Your task to perform on an android device: turn off wifi Image 0: 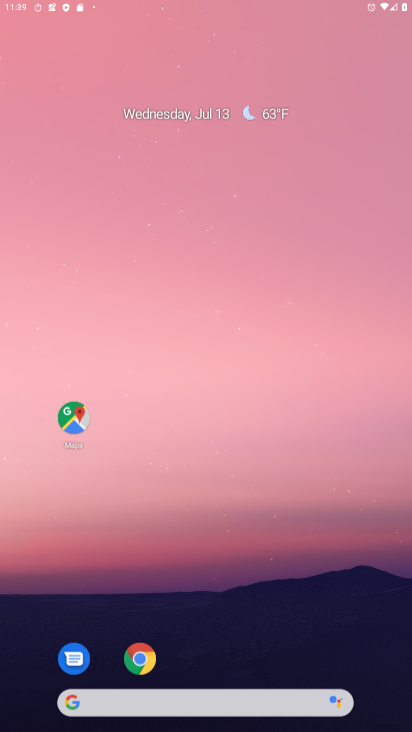
Step 0: drag from (262, 605) to (217, 24)
Your task to perform on an android device: turn off wifi Image 1: 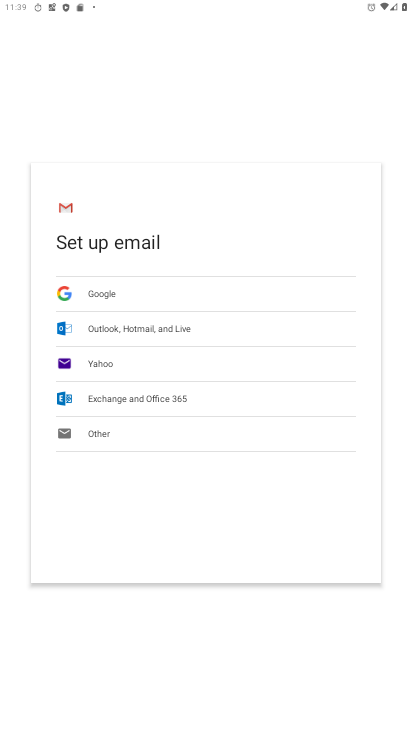
Step 1: press home button
Your task to perform on an android device: turn off wifi Image 2: 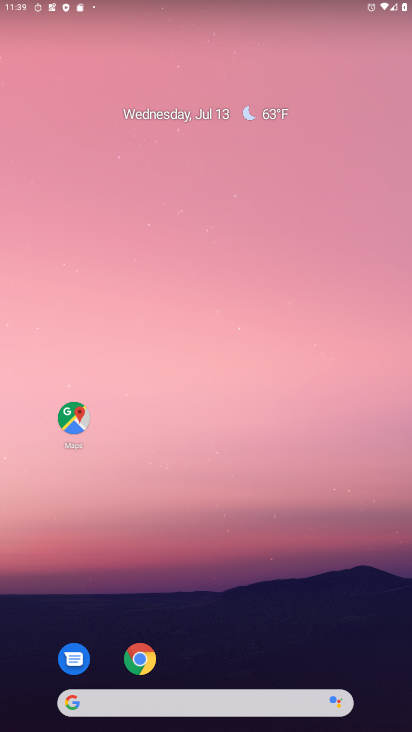
Step 2: drag from (246, 541) to (178, 54)
Your task to perform on an android device: turn off wifi Image 3: 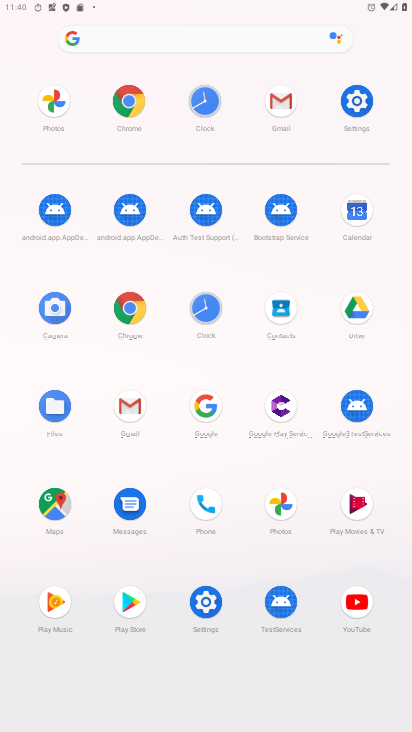
Step 3: click (343, 98)
Your task to perform on an android device: turn off wifi Image 4: 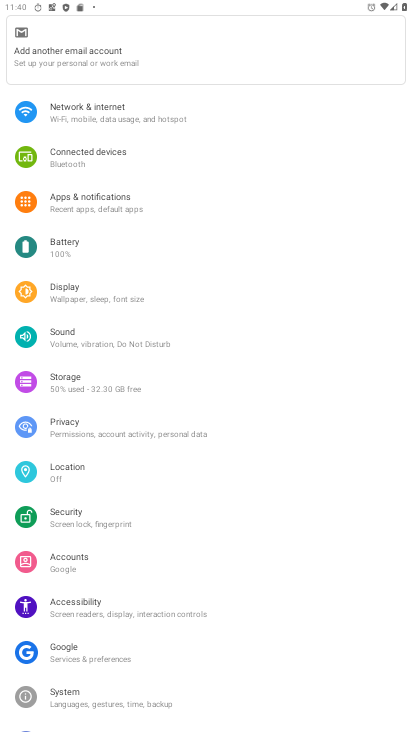
Step 4: click (108, 107)
Your task to perform on an android device: turn off wifi Image 5: 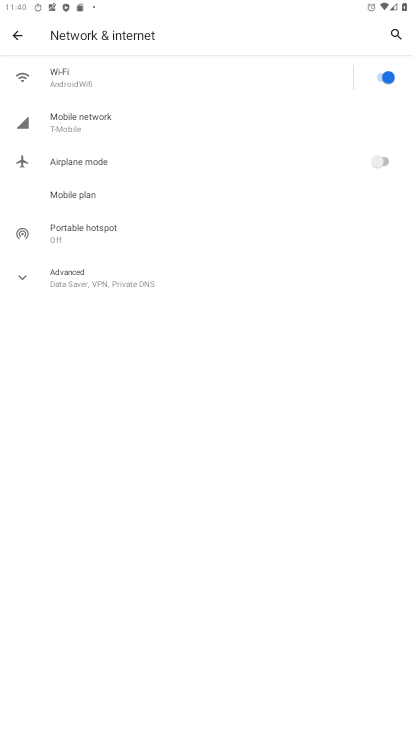
Step 5: click (394, 75)
Your task to perform on an android device: turn off wifi Image 6: 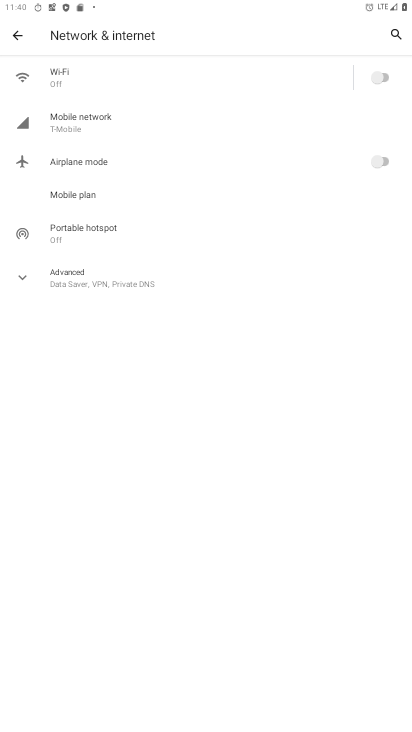
Step 6: task complete